Your task to perform on an android device: Search for seafood restaurants on Google Maps Image 0: 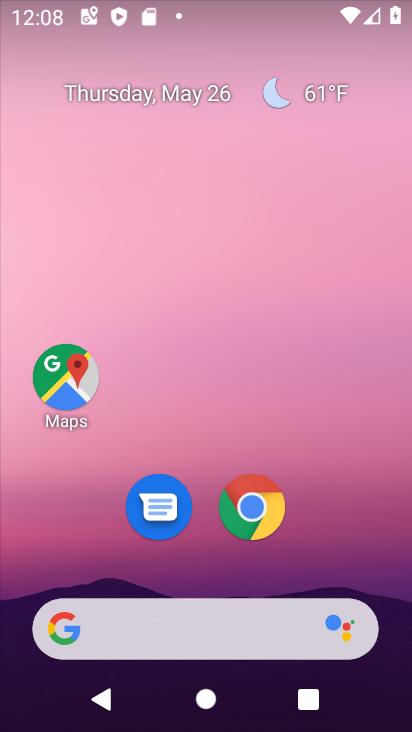
Step 0: click (73, 394)
Your task to perform on an android device: Search for seafood restaurants on Google Maps Image 1: 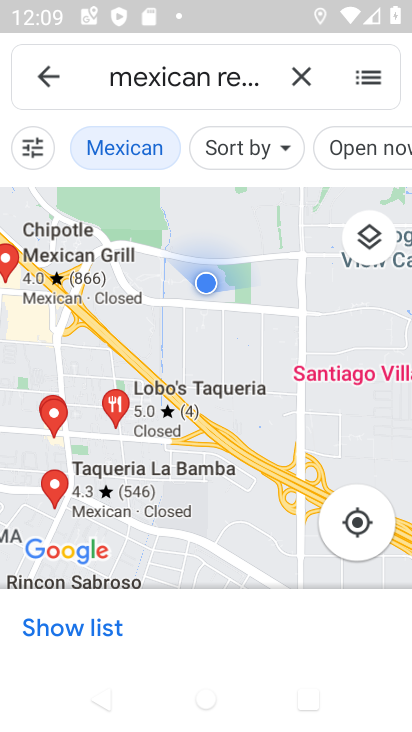
Step 1: click (305, 76)
Your task to perform on an android device: Search for seafood restaurants on Google Maps Image 2: 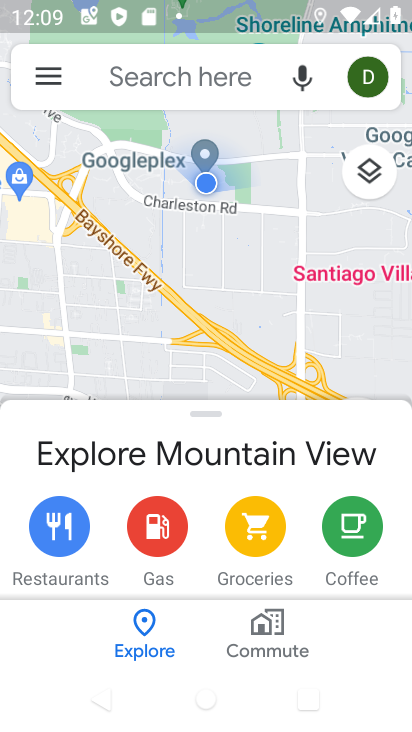
Step 2: click (251, 79)
Your task to perform on an android device: Search for seafood restaurants on Google Maps Image 3: 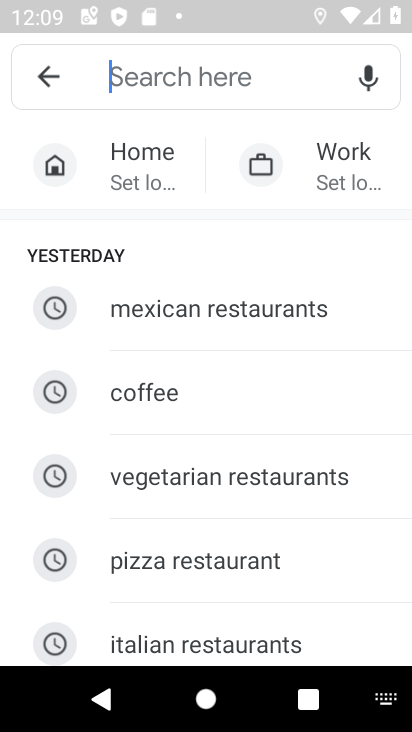
Step 3: type "sea"
Your task to perform on an android device: Search for seafood restaurants on Google Maps Image 4: 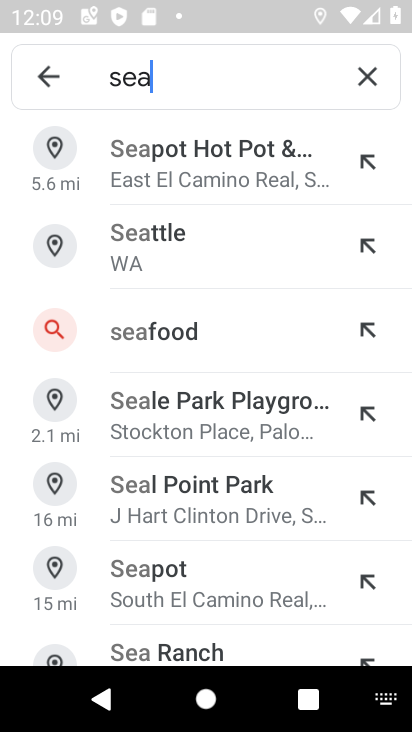
Step 4: click (227, 155)
Your task to perform on an android device: Search for seafood restaurants on Google Maps Image 5: 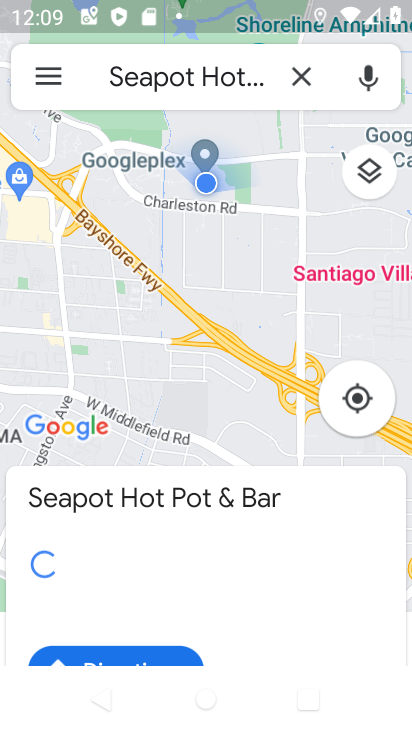
Step 5: task complete